Your task to perform on an android device: clear history in the chrome app Image 0: 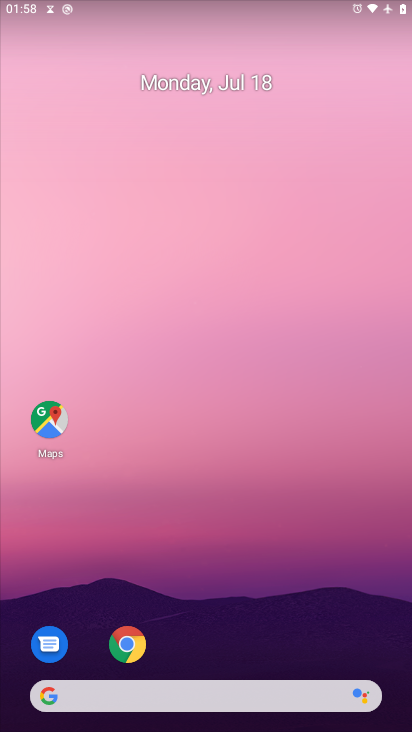
Step 0: press home button
Your task to perform on an android device: clear history in the chrome app Image 1: 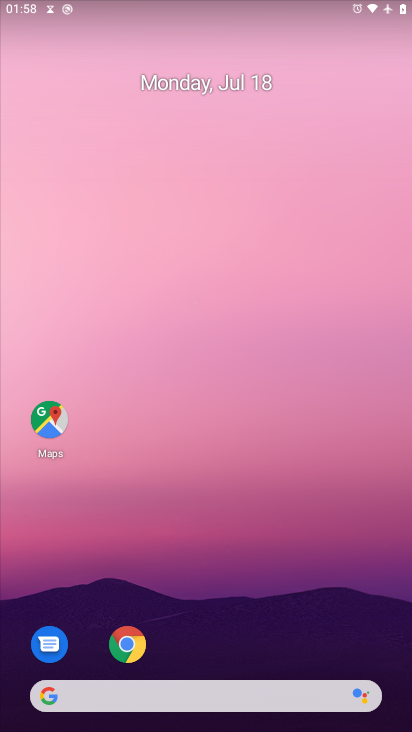
Step 1: drag from (198, 644) to (201, 51)
Your task to perform on an android device: clear history in the chrome app Image 2: 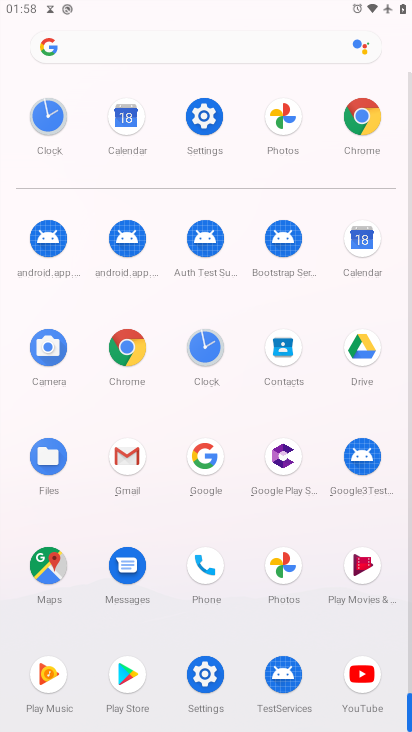
Step 2: click (354, 121)
Your task to perform on an android device: clear history in the chrome app Image 3: 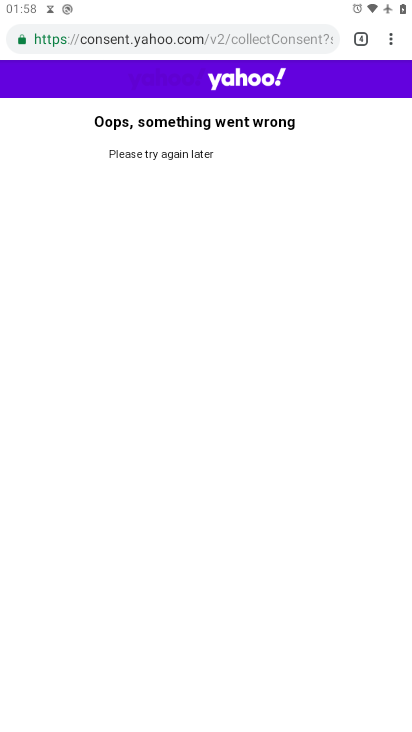
Step 3: task complete